Your task to perform on an android device: install app "Upside-Cash back on gas & food" Image 0: 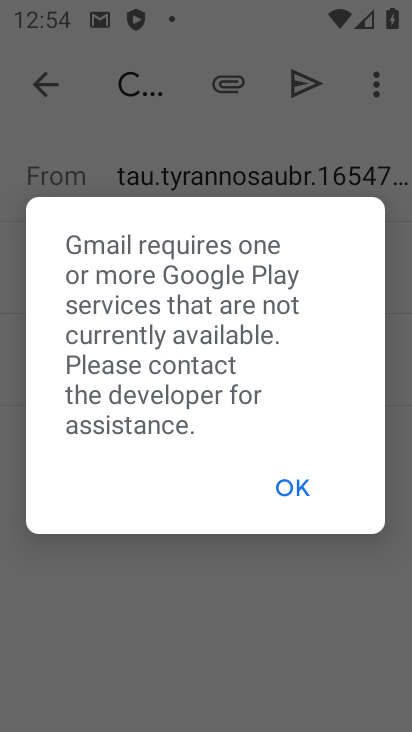
Step 0: click (275, 503)
Your task to perform on an android device: install app "Upside-Cash back on gas & food" Image 1: 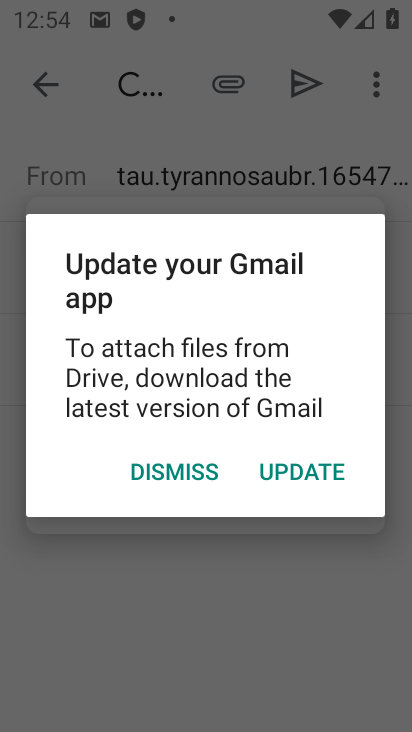
Step 1: press back button
Your task to perform on an android device: install app "Upside-Cash back on gas & food" Image 2: 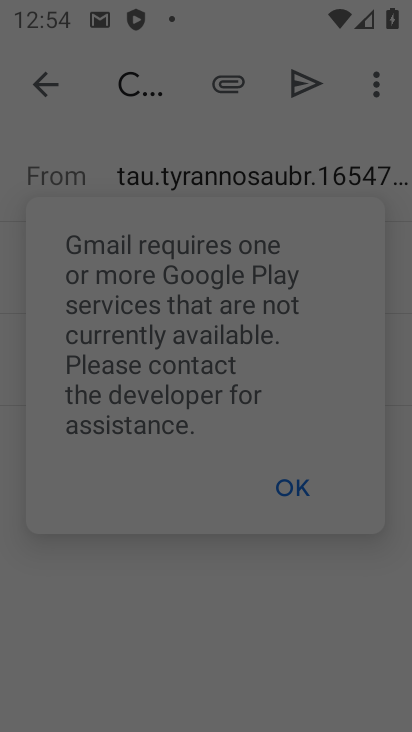
Step 2: press home button
Your task to perform on an android device: install app "Upside-Cash back on gas & food" Image 3: 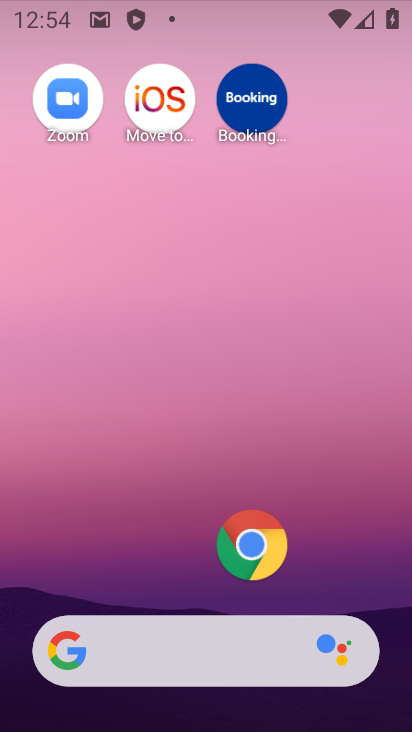
Step 3: drag from (182, 559) to (243, 28)
Your task to perform on an android device: install app "Upside-Cash back on gas & food" Image 4: 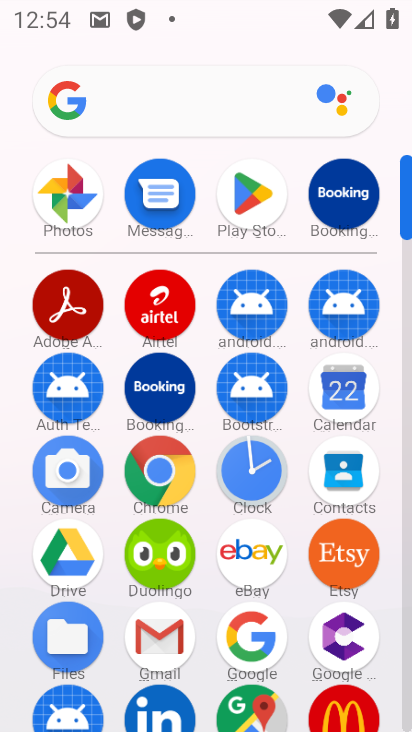
Step 4: click (270, 198)
Your task to perform on an android device: install app "Upside-Cash back on gas & food" Image 5: 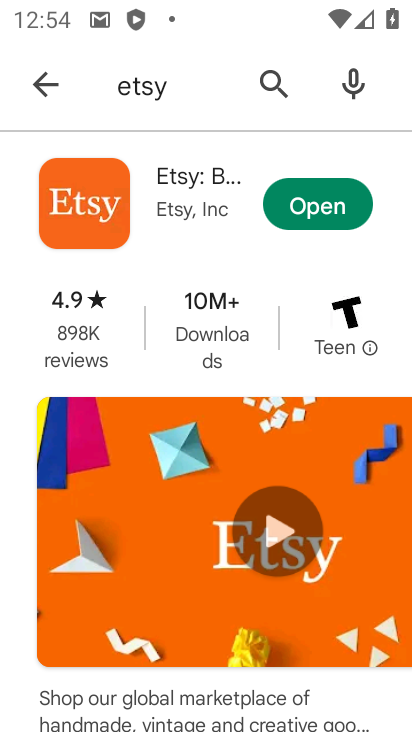
Step 5: click (289, 73)
Your task to perform on an android device: install app "Upside-Cash back on gas & food" Image 6: 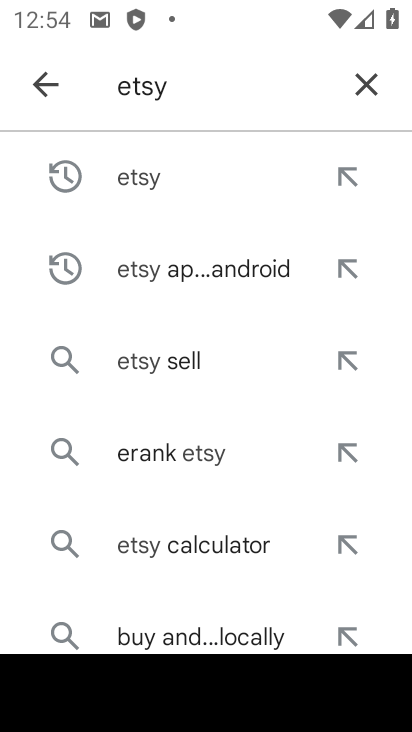
Step 6: click (369, 80)
Your task to perform on an android device: install app "Upside-Cash back on gas & food" Image 7: 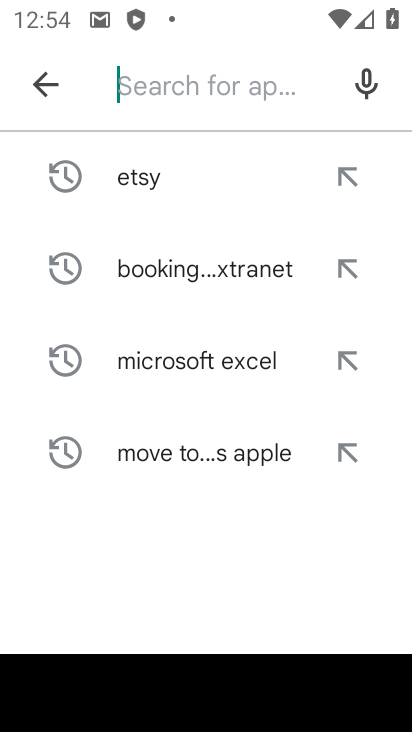
Step 7: click (182, 104)
Your task to perform on an android device: install app "Upside-Cash back on gas & food" Image 8: 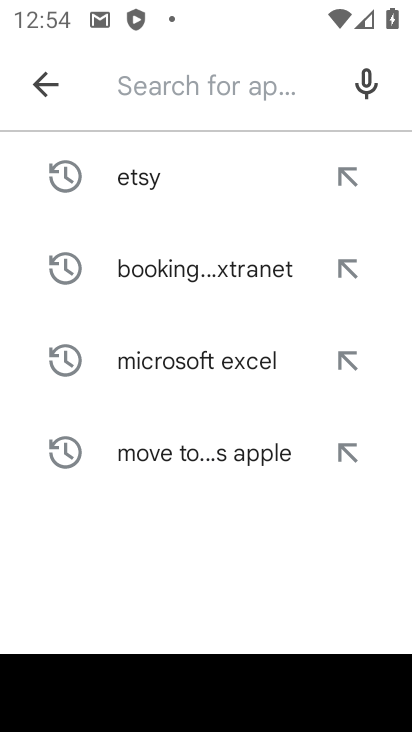
Step 8: type "Upside-Cash back on gas & food"
Your task to perform on an android device: install app "Upside-Cash back on gas & food" Image 9: 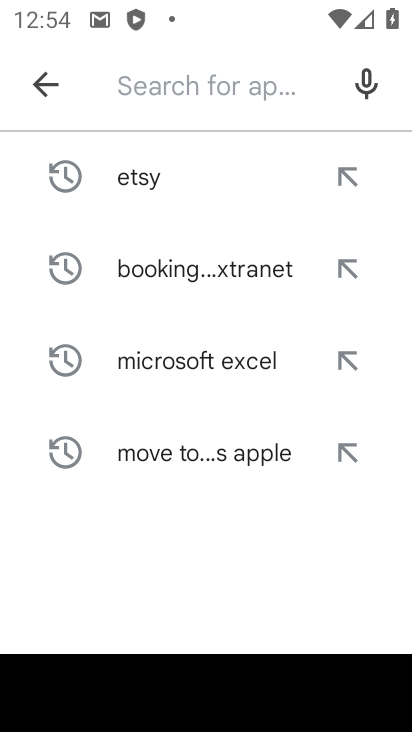
Step 9: click (178, 584)
Your task to perform on an android device: install app "Upside-Cash back on gas & food" Image 10: 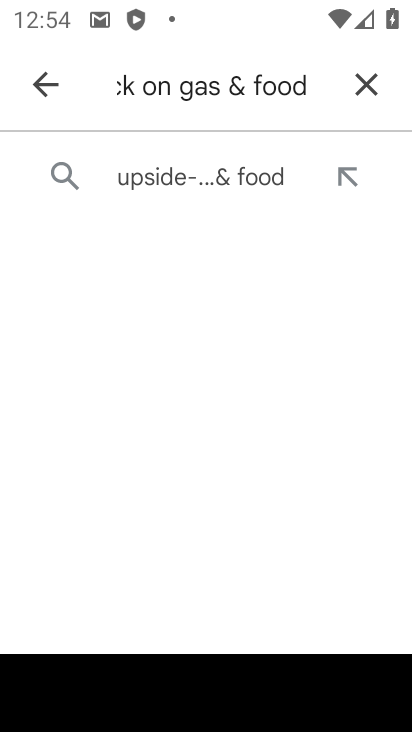
Step 10: click (151, 181)
Your task to perform on an android device: install app "Upside-Cash back on gas & food" Image 11: 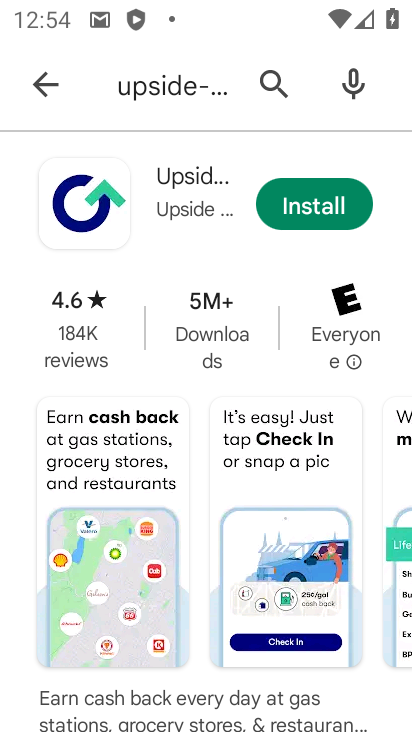
Step 11: click (337, 195)
Your task to perform on an android device: install app "Upside-Cash back on gas & food" Image 12: 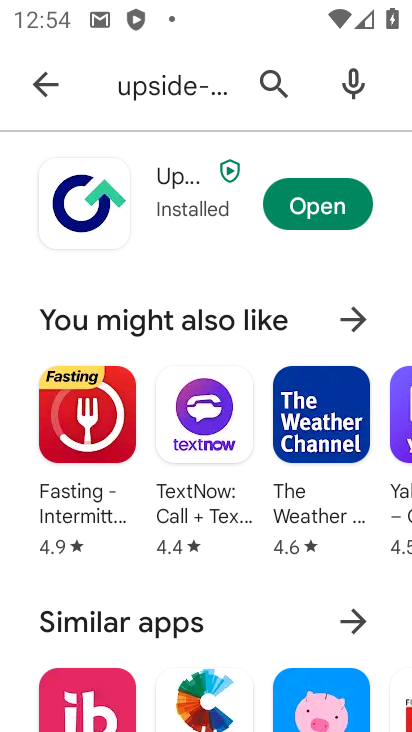
Step 12: task complete